Your task to perform on an android device: Search for a good pizza place on Maps Image 0: 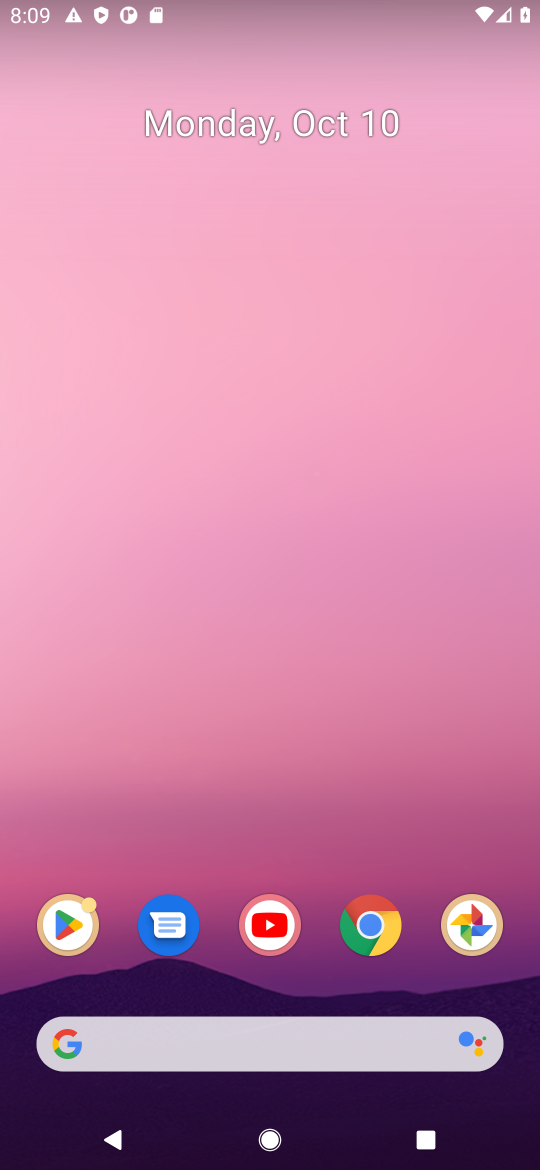
Step 0: drag from (331, 962) to (288, 110)
Your task to perform on an android device: Search for a good pizza place on Maps Image 1: 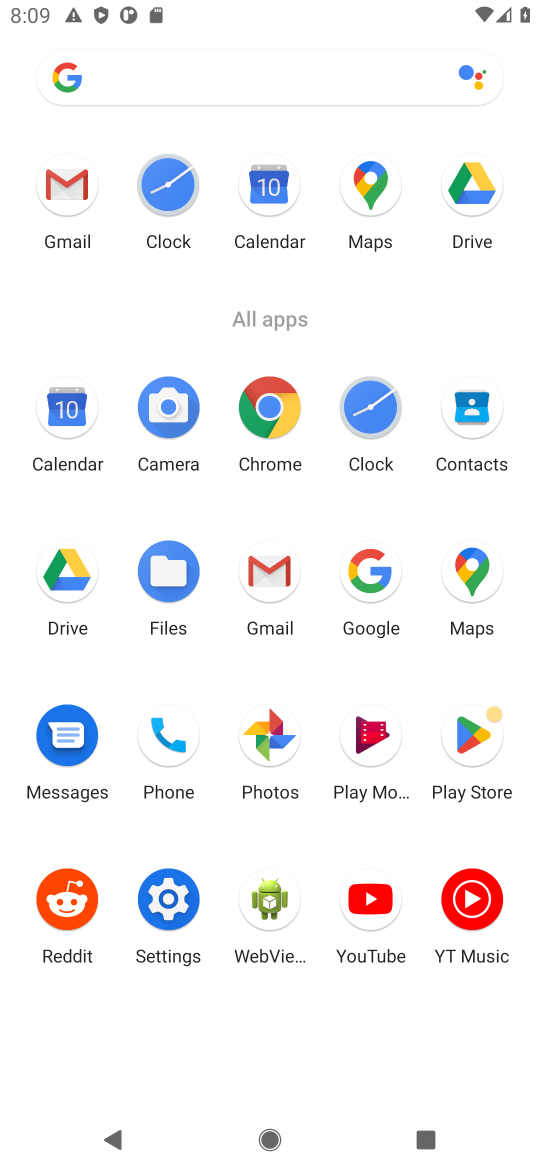
Step 1: click (486, 544)
Your task to perform on an android device: Search for a good pizza place on Maps Image 2: 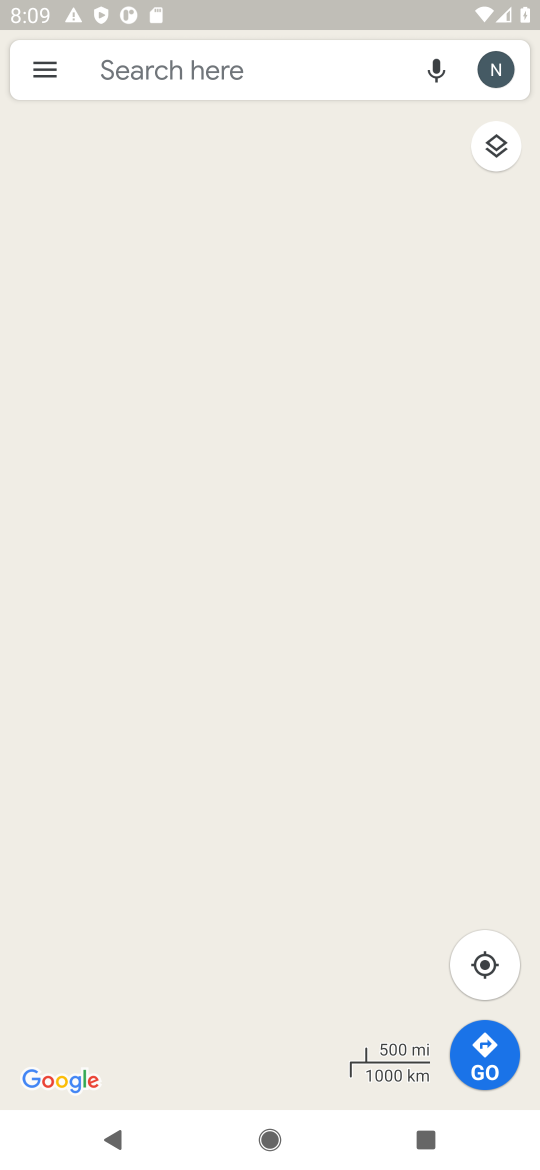
Step 2: click (293, 65)
Your task to perform on an android device: Search for a good pizza place on Maps Image 3: 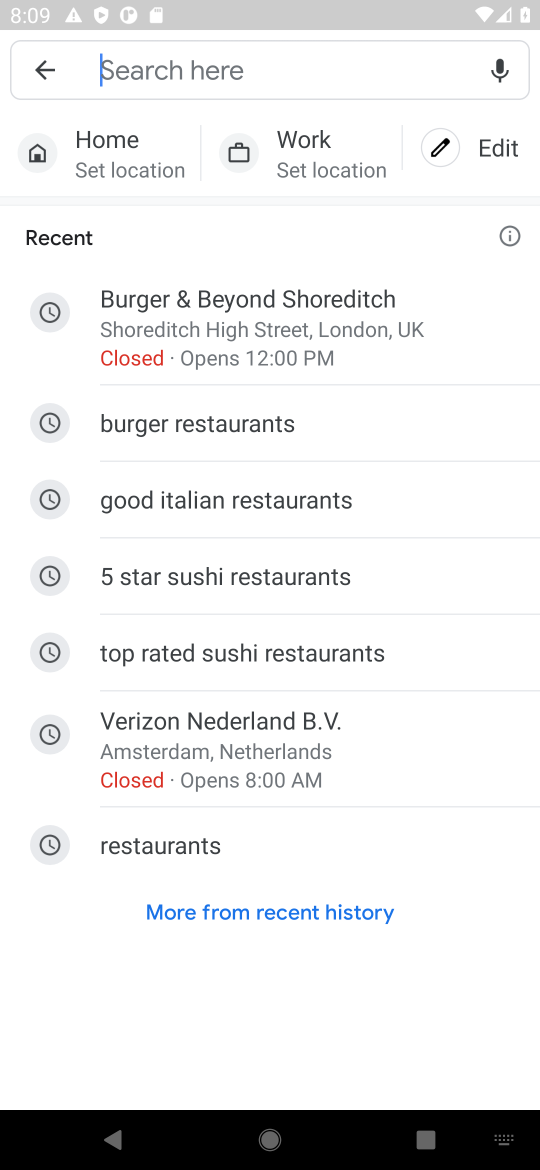
Step 3: type "good pizza place"
Your task to perform on an android device: Search for a good pizza place on Maps Image 4: 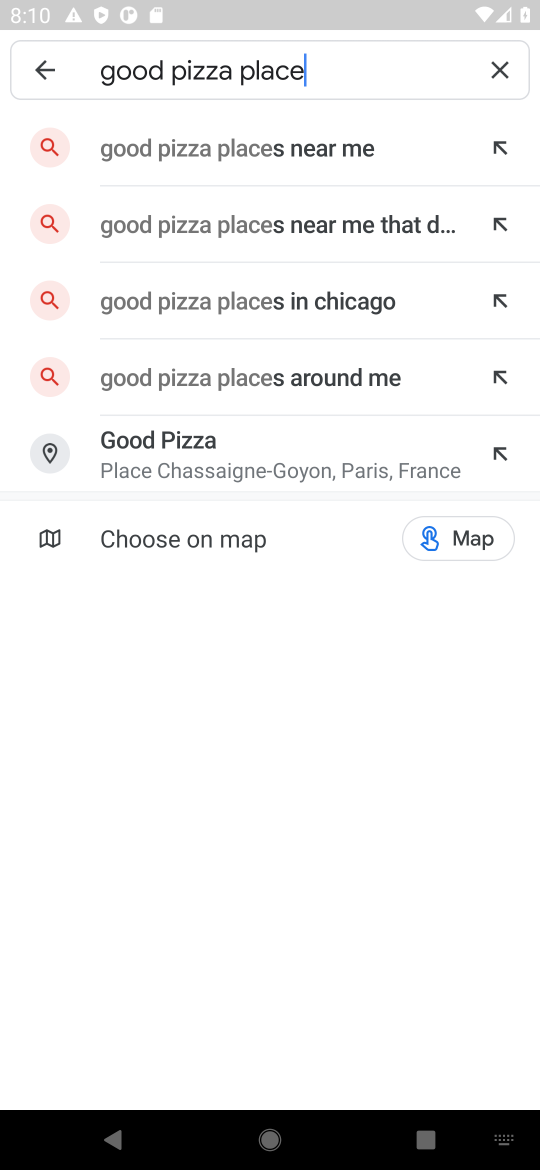
Step 4: press enter
Your task to perform on an android device: Search for a good pizza place on Maps Image 5: 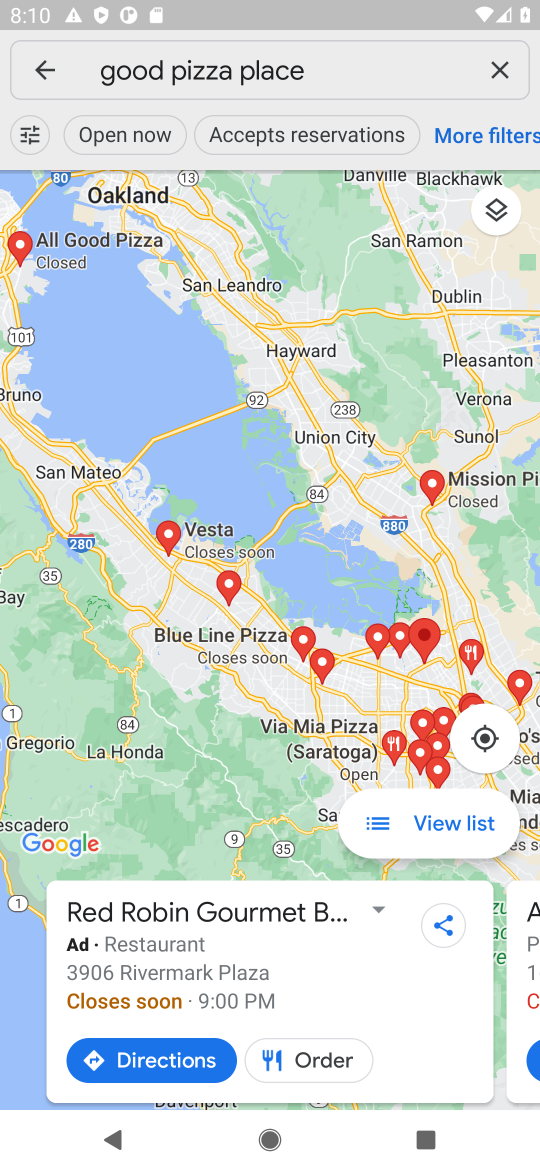
Step 5: task complete